Your task to perform on an android device: check battery use Image 0: 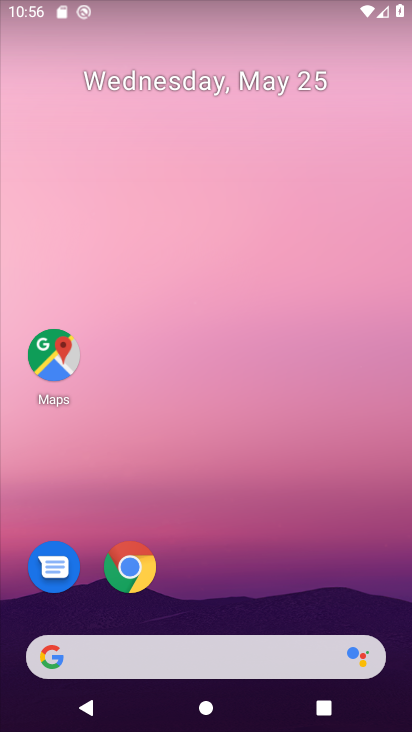
Step 0: drag from (281, 559) to (275, 26)
Your task to perform on an android device: check battery use Image 1: 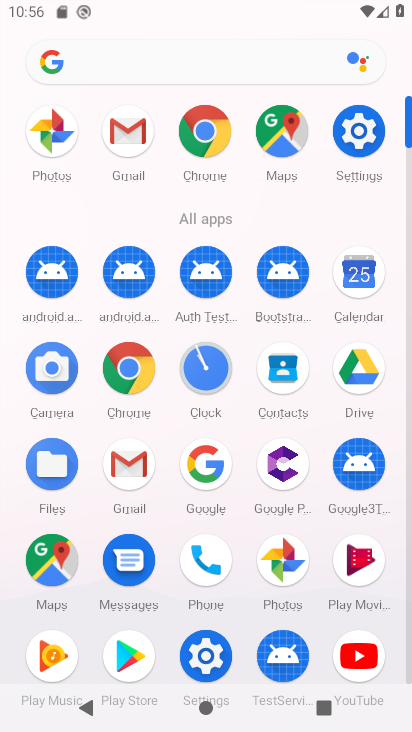
Step 1: click (368, 128)
Your task to perform on an android device: check battery use Image 2: 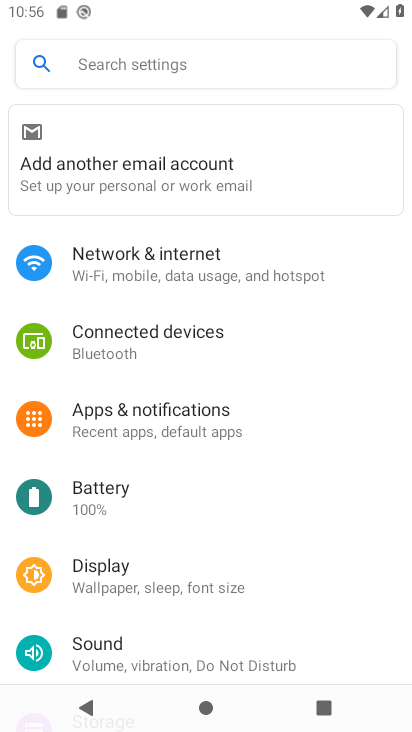
Step 2: click (82, 479)
Your task to perform on an android device: check battery use Image 3: 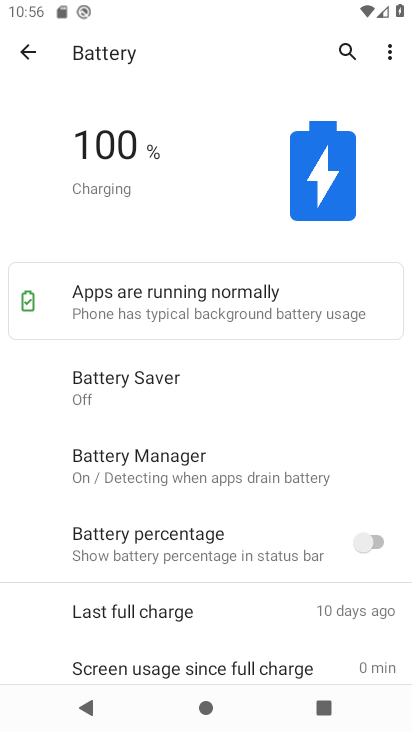
Step 3: click (393, 52)
Your task to perform on an android device: check battery use Image 4: 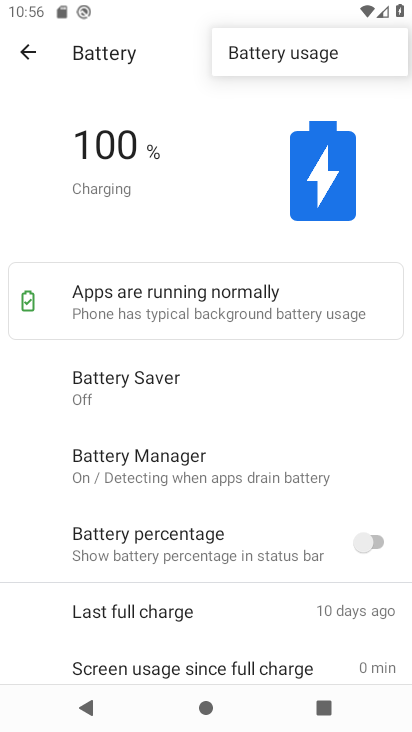
Step 4: click (307, 55)
Your task to perform on an android device: check battery use Image 5: 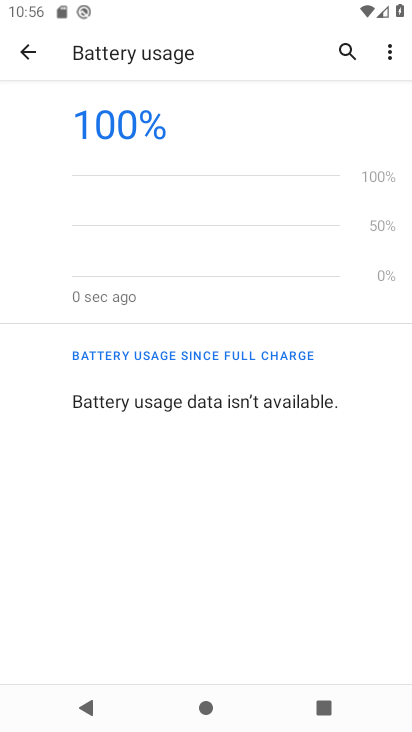
Step 5: task complete